Your task to perform on an android device: Open CNN.com Image 0: 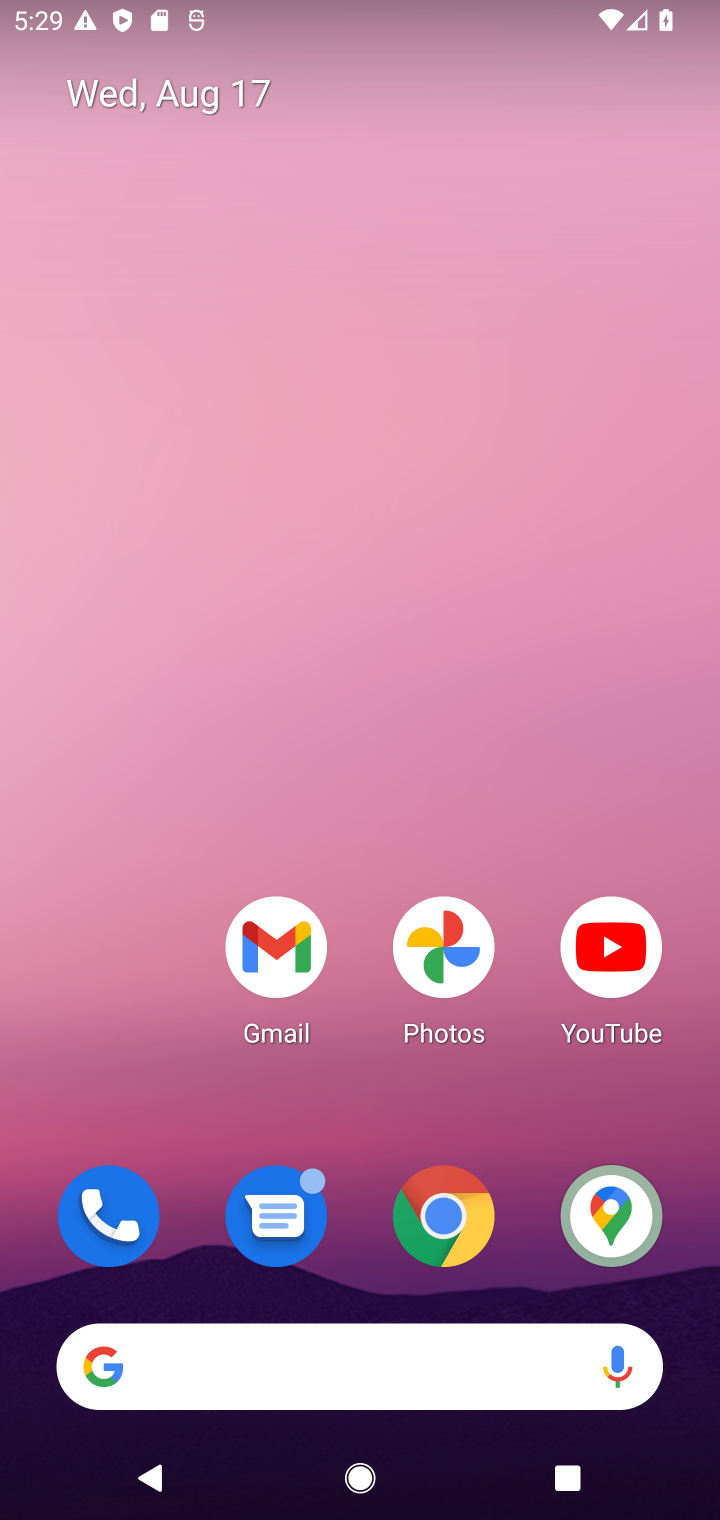
Step 0: click (414, 1204)
Your task to perform on an android device: Open CNN.com Image 1: 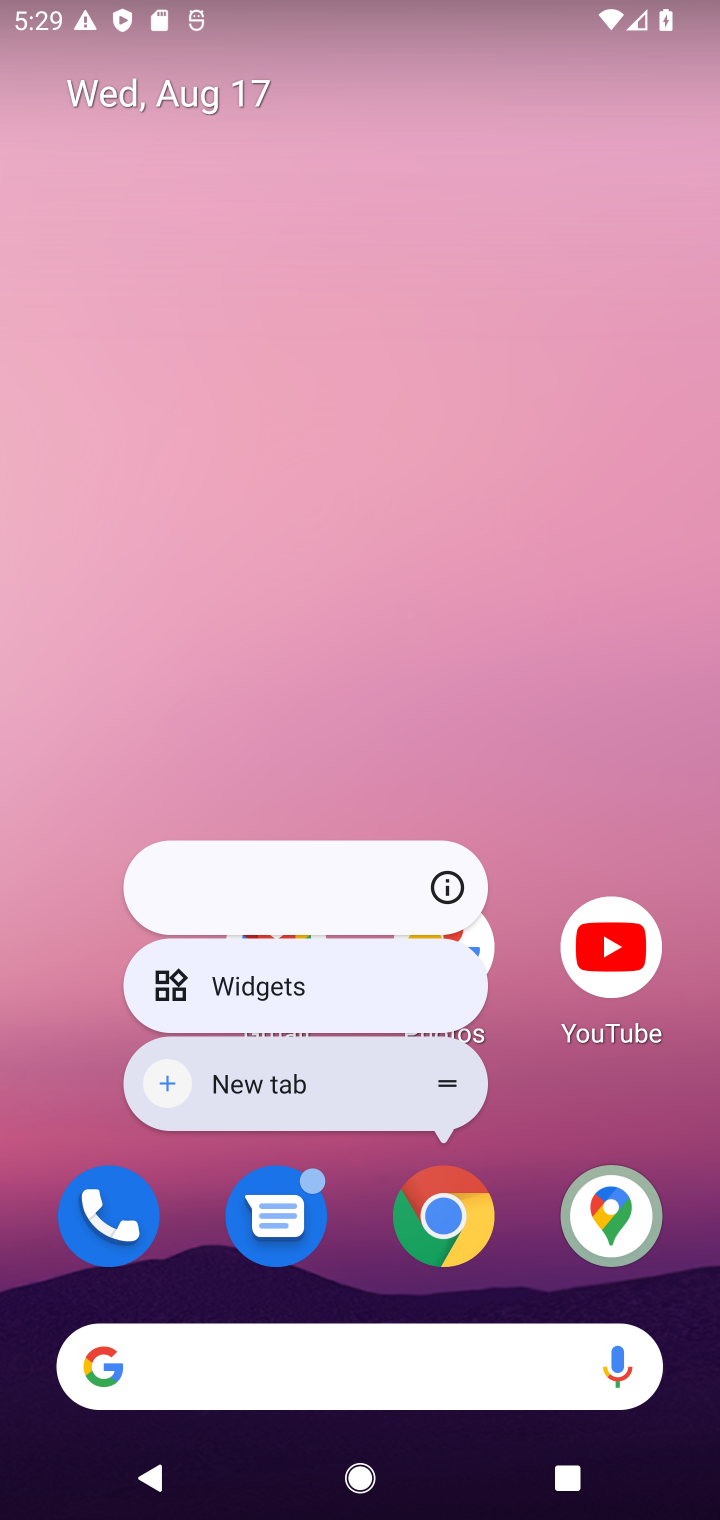
Step 1: click (428, 1218)
Your task to perform on an android device: Open CNN.com Image 2: 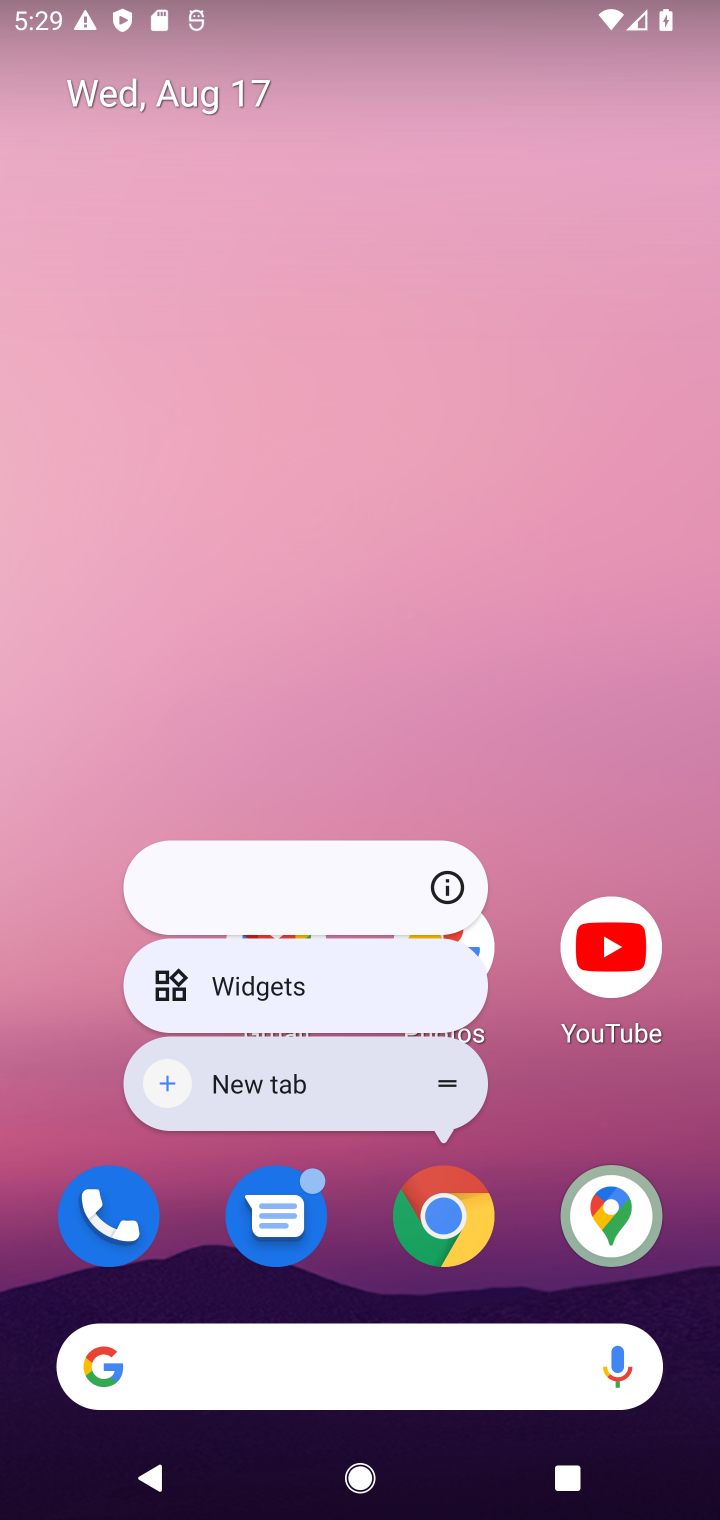
Step 2: click (449, 1217)
Your task to perform on an android device: Open CNN.com Image 3: 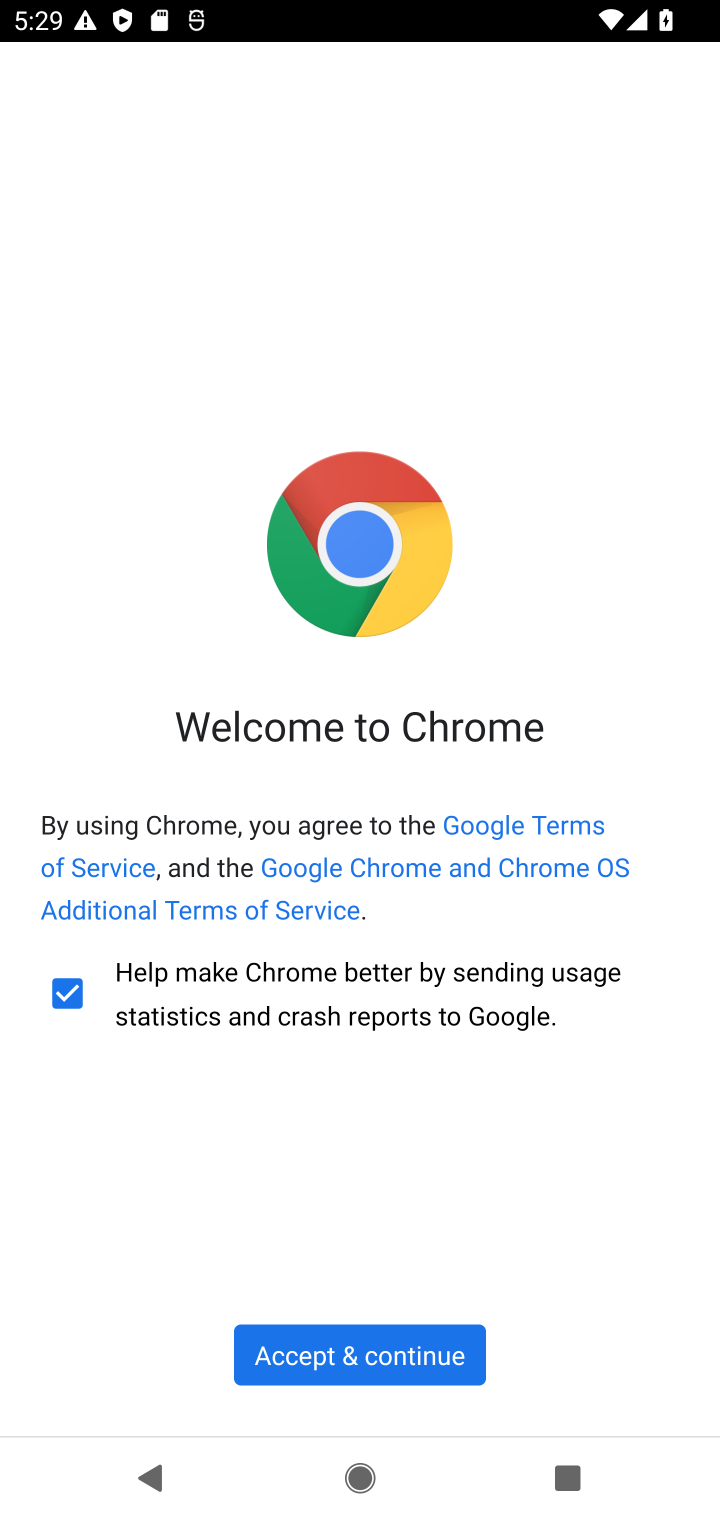
Step 3: click (409, 1348)
Your task to perform on an android device: Open CNN.com Image 4: 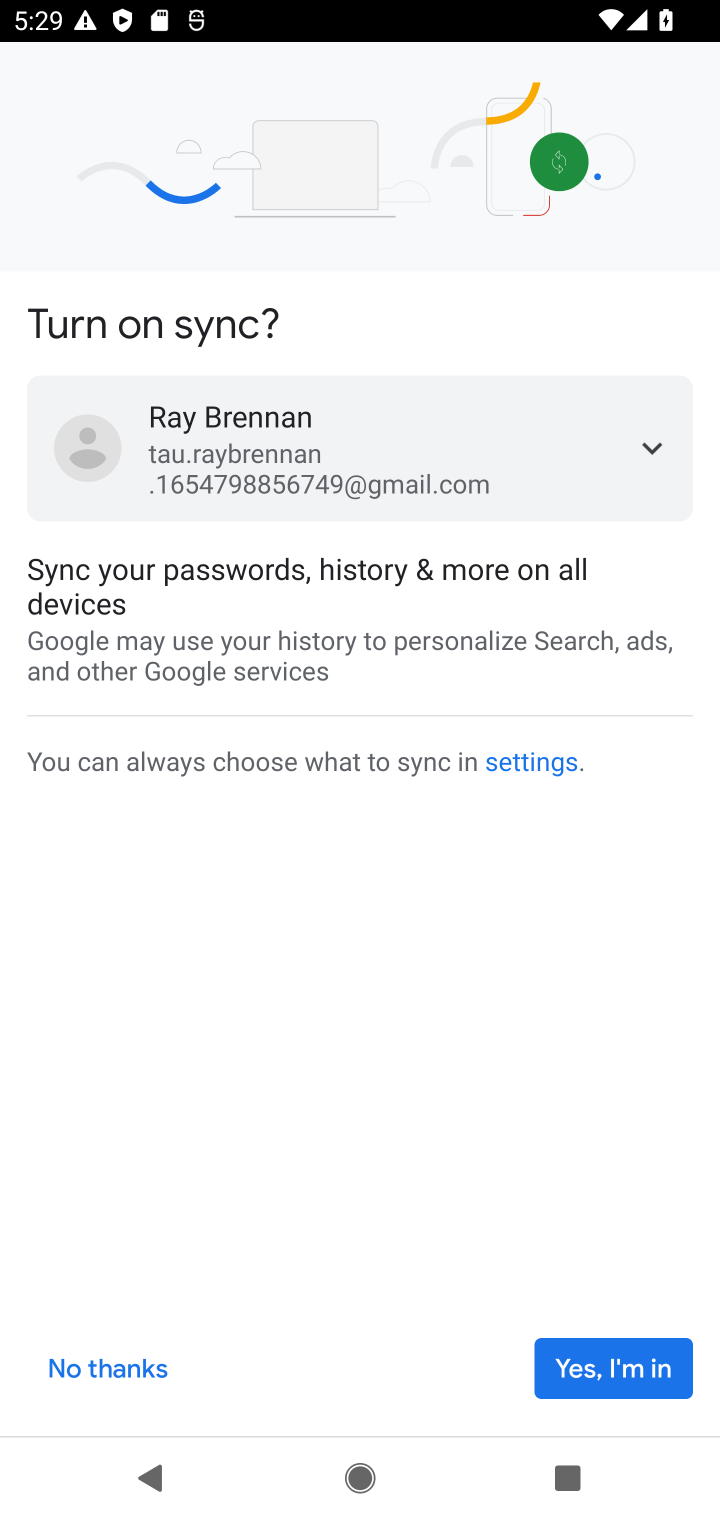
Step 4: click (643, 1340)
Your task to perform on an android device: Open CNN.com Image 5: 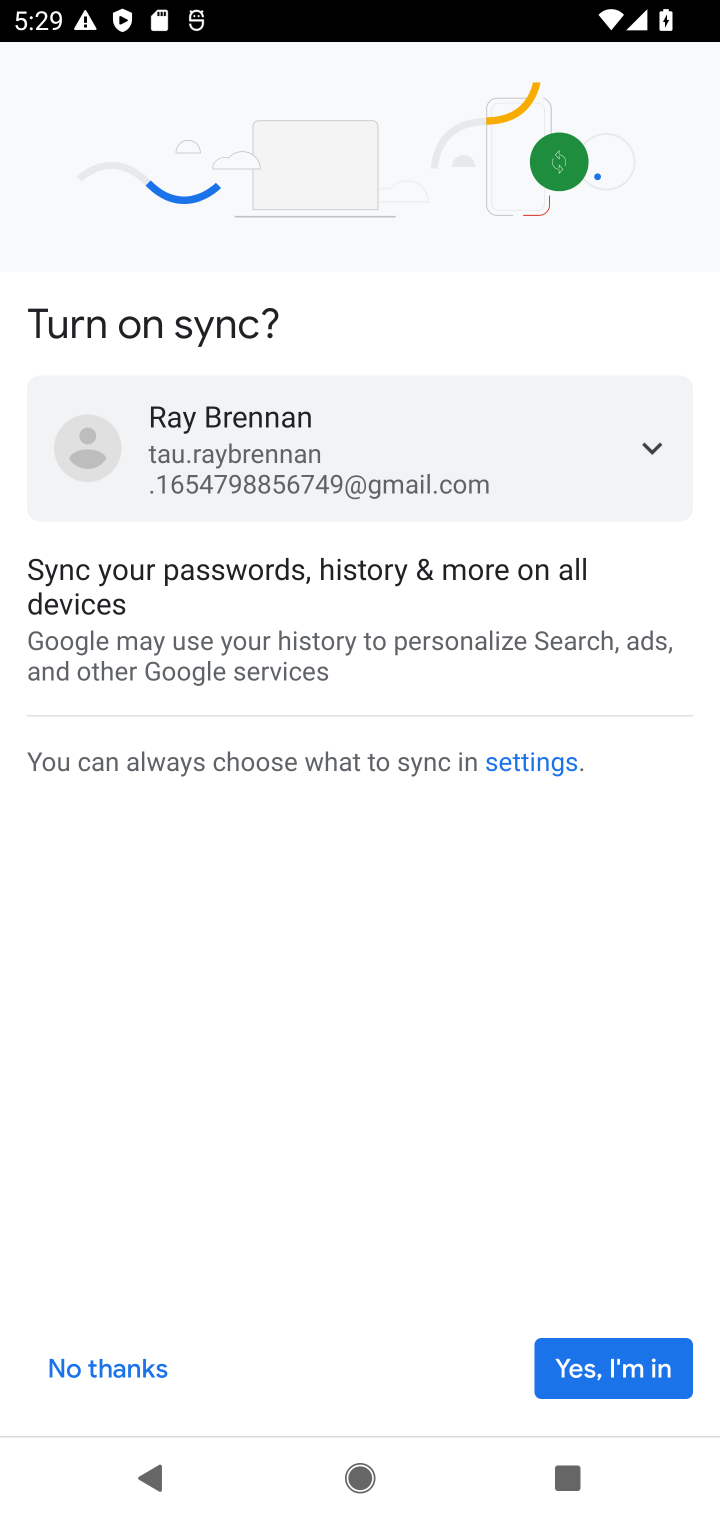
Step 5: click (643, 1340)
Your task to perform on an android device: Open CNN.com Image 6: 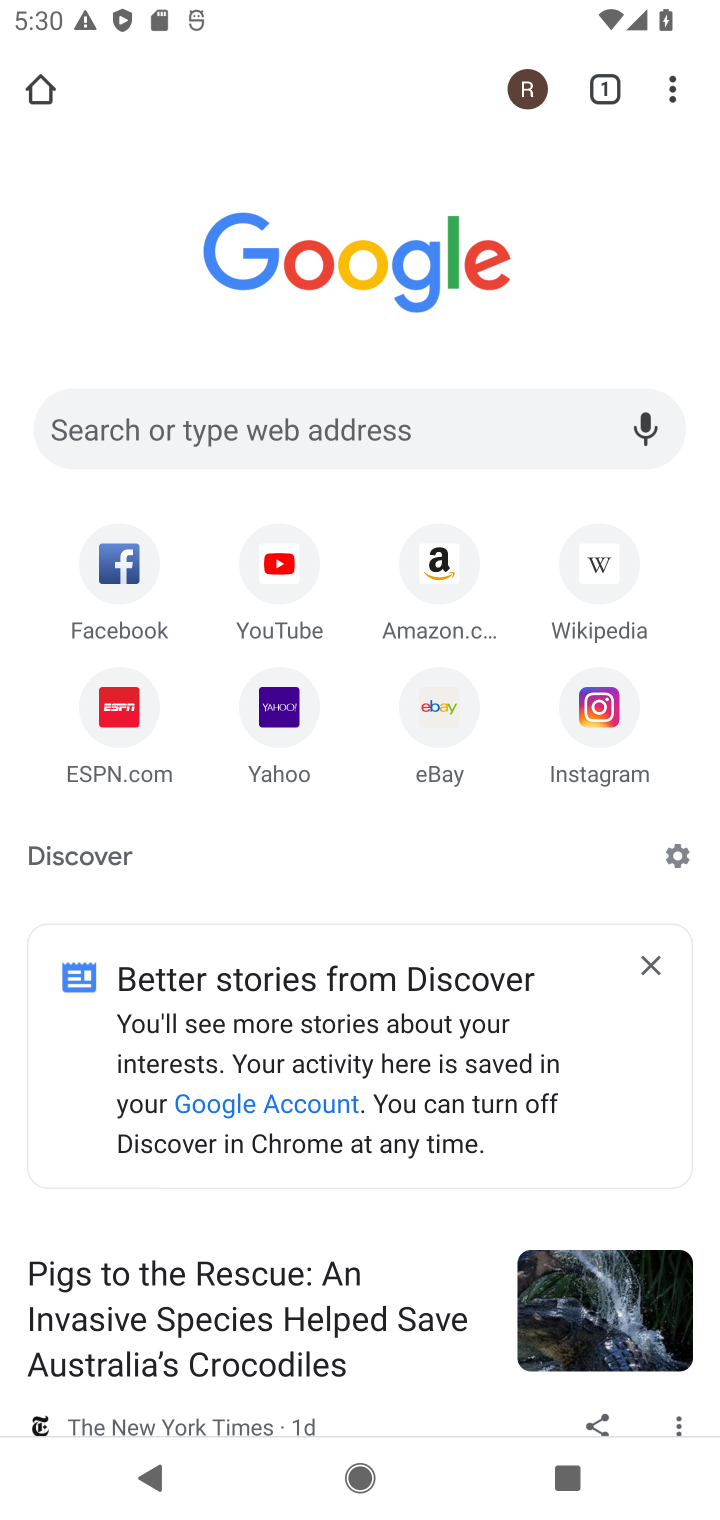
Step 6: click (302, 402)
Your task to perform on an android device: Open CNN.com Image 7: 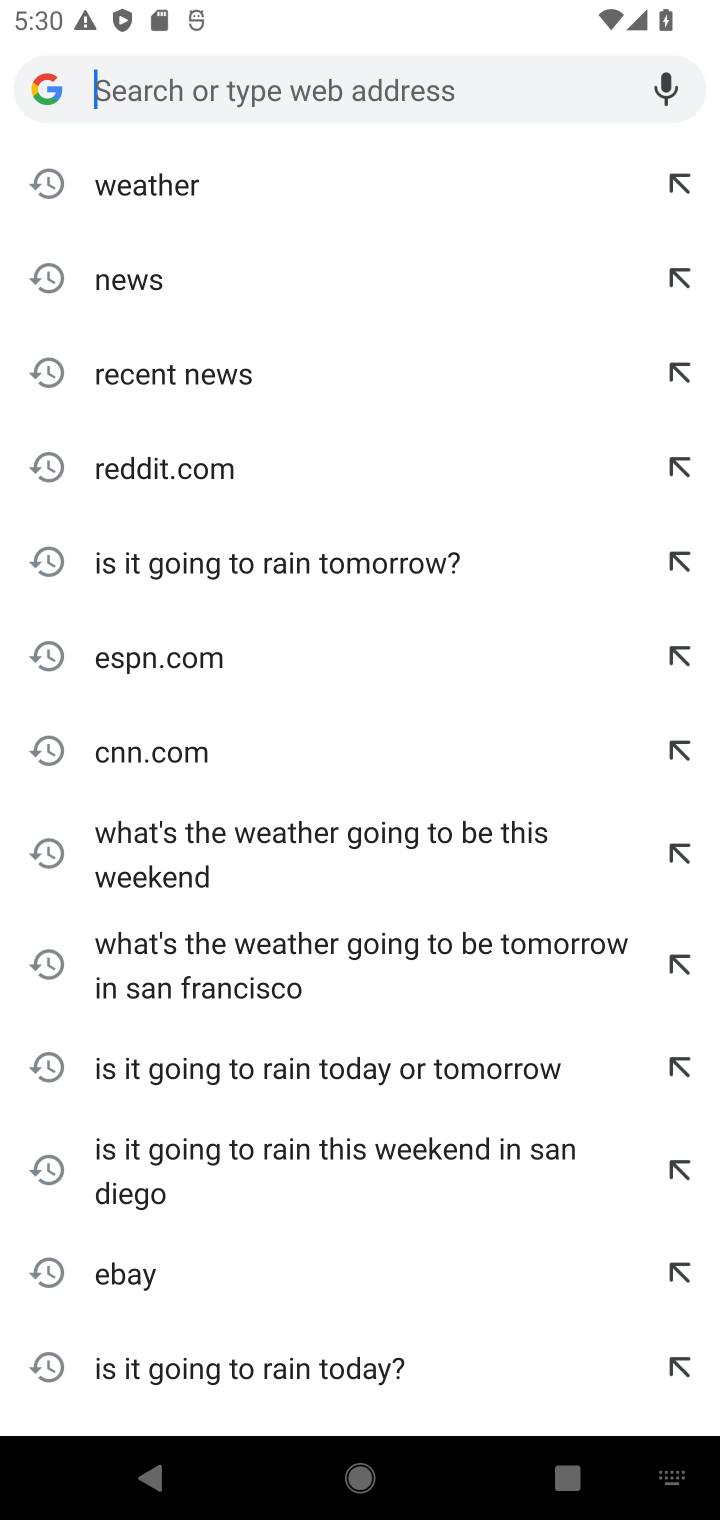
Step 7: type "CNN.com"
Your task to perform on an android device: Open CNN.com Image 8: 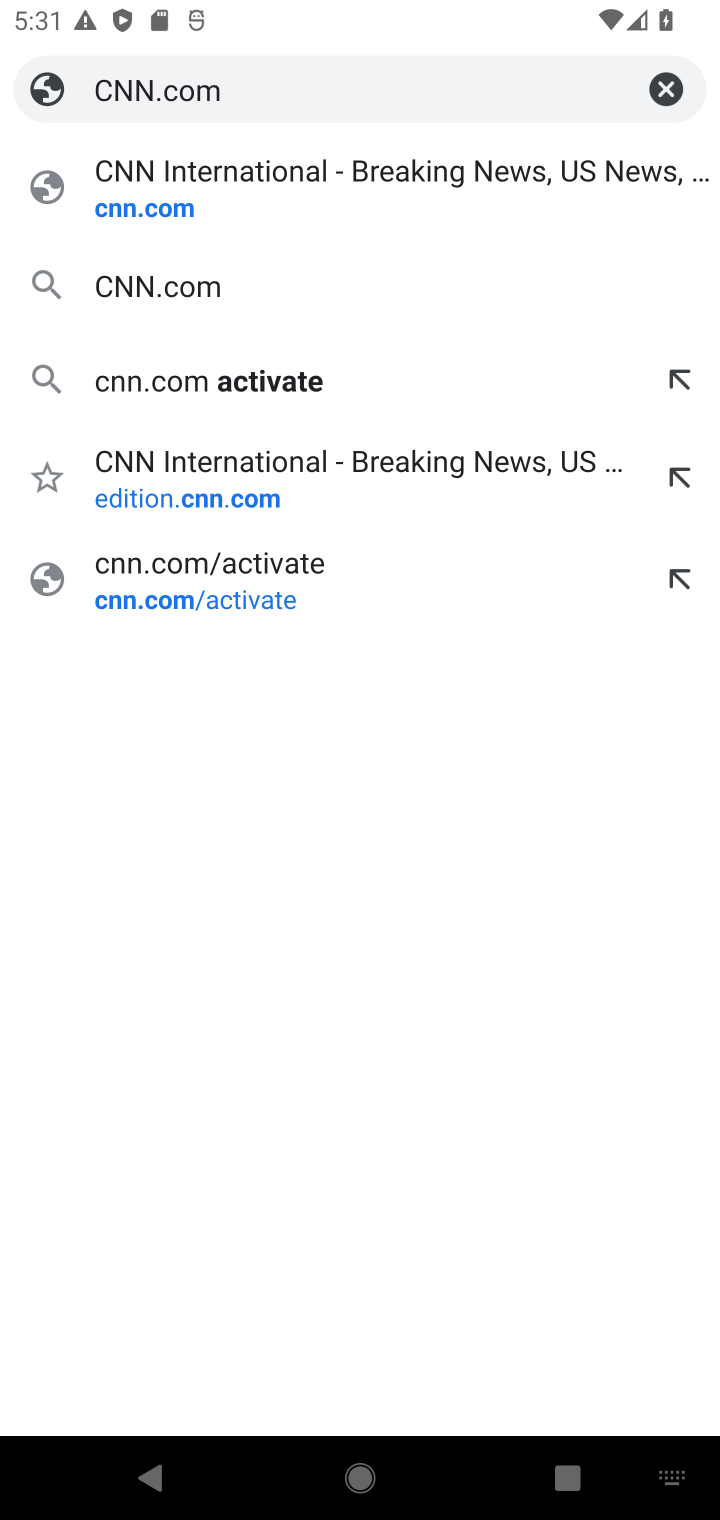
Step 8: click (103, 213)
Your task to perform on an android device: Open CNN.com Image 9: 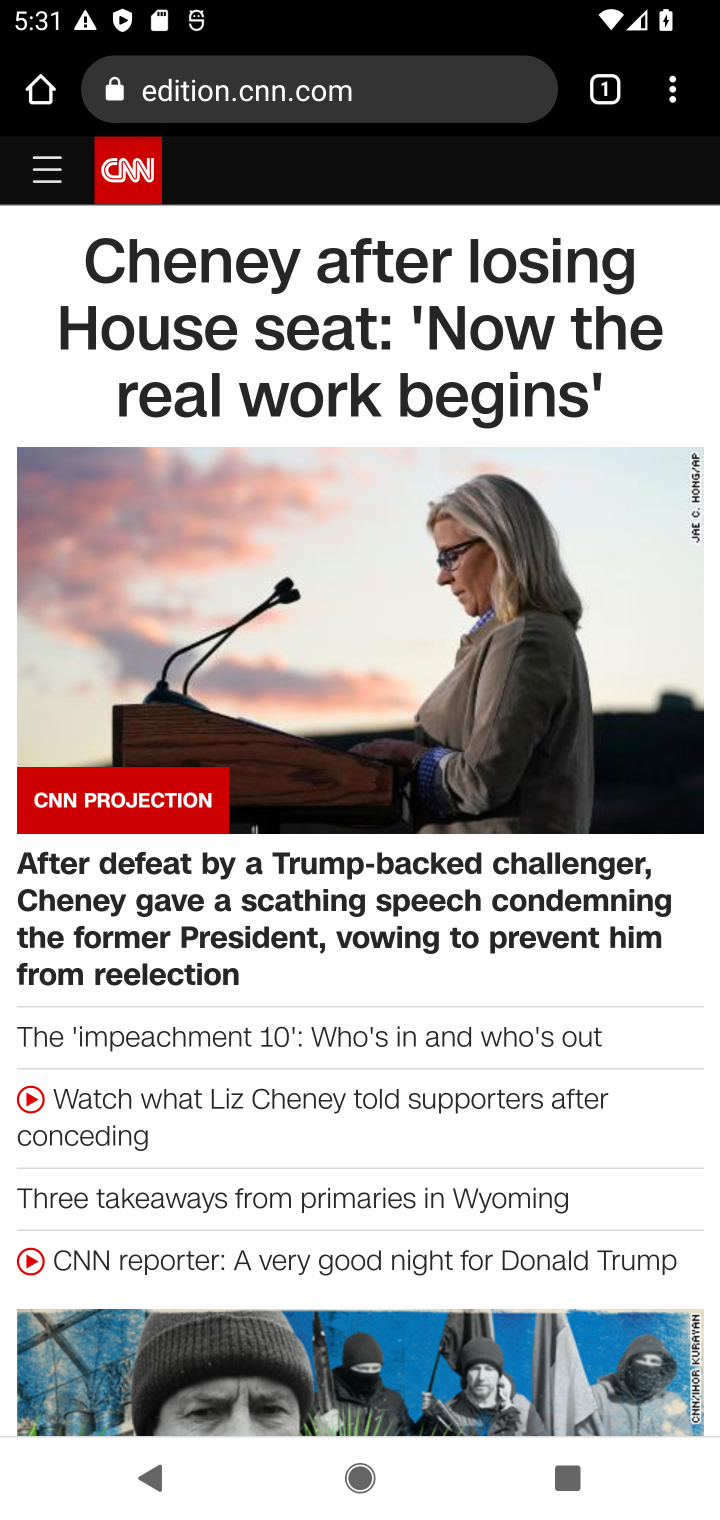
Step 9: task complete